Your task to perform on an android device: Search for flights from NYC to Chicago Image 0: 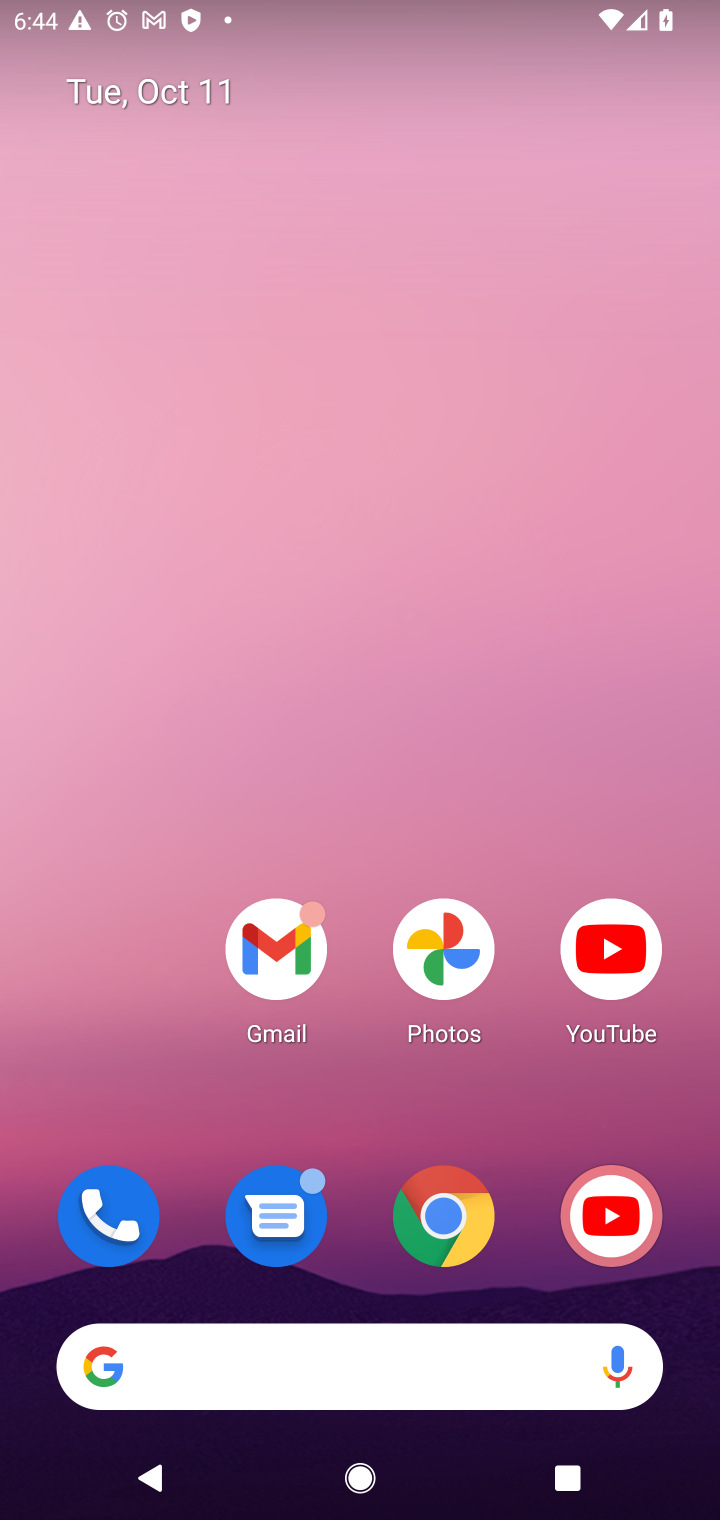
Step 0: click (438, 1256)
Your task to perform on an android device: Search for flights from NYC to Chicago Image 1: 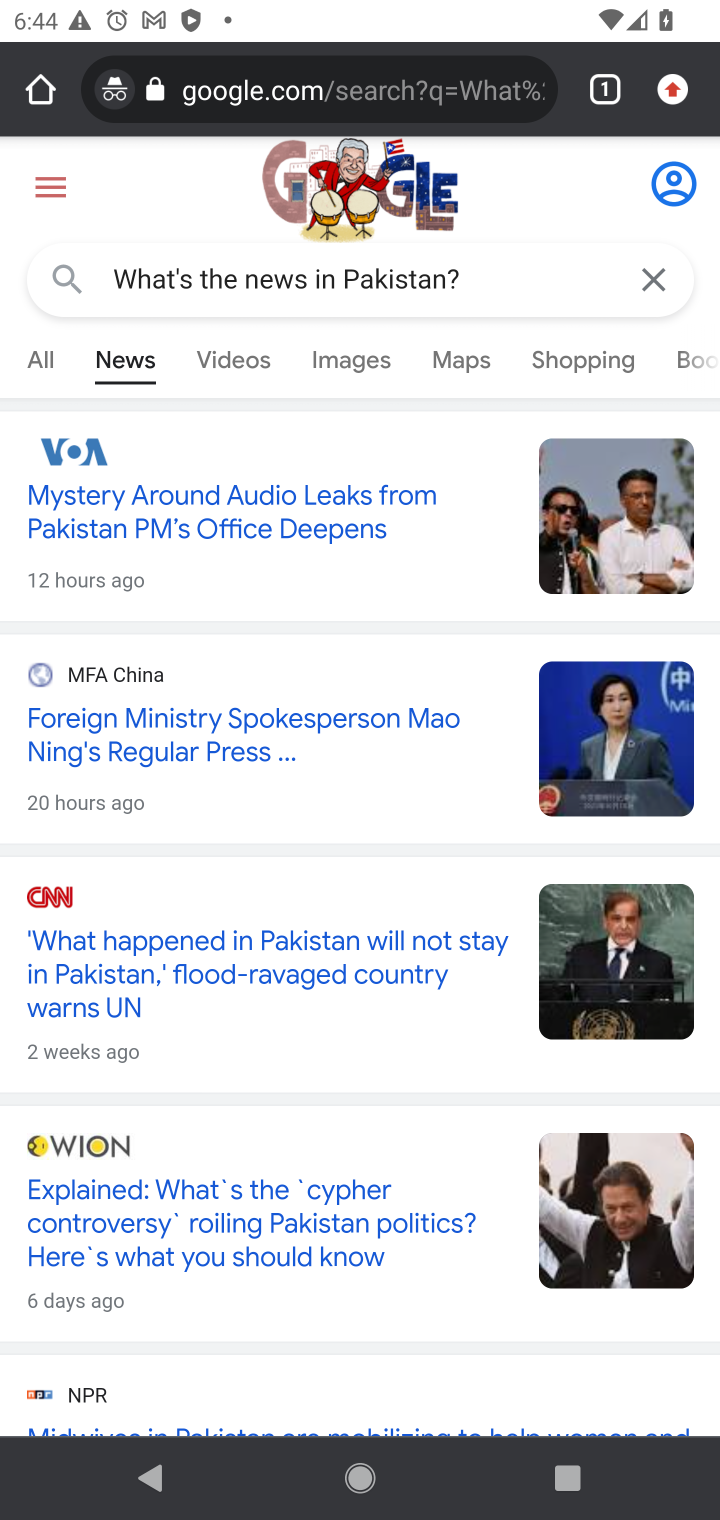
Step 1: click (17, 372)
Your task to perform on an android device: Search for flights from NYC to Chicago Image 2: 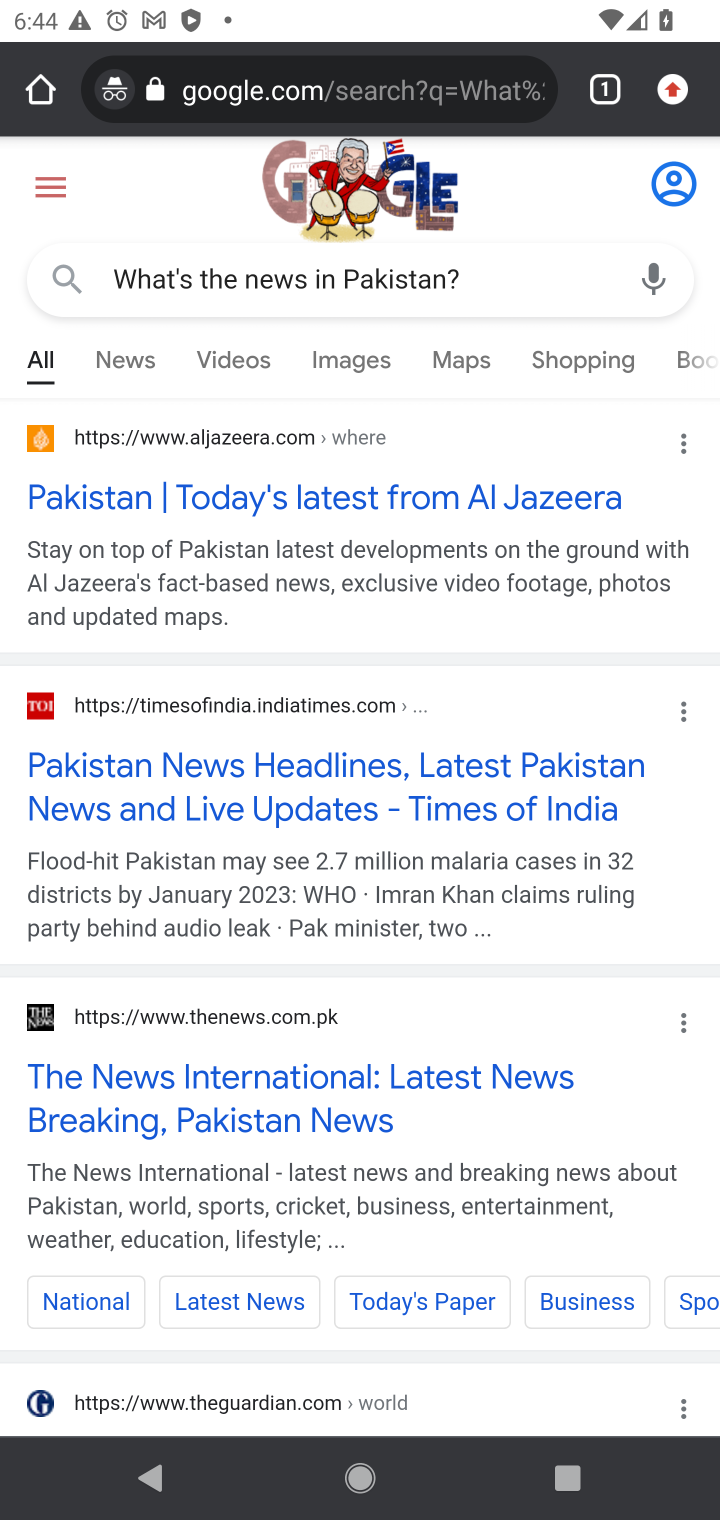
Step 2: click (512, 296)
Your task to perform on an android device: Search for flights from NYC to Chicago Image 3: 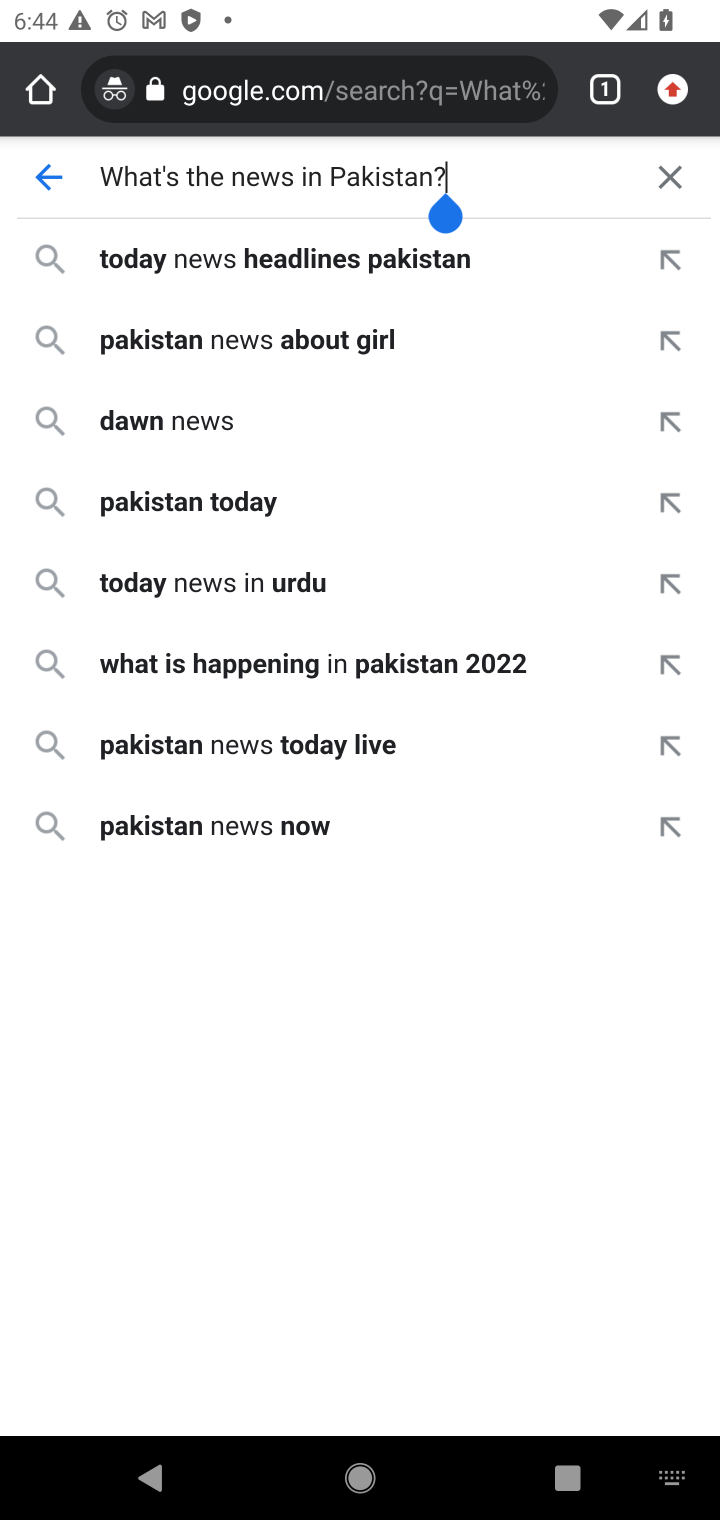
Step 3: click (662, 191)
Your task to perform on an android device: Search for flights from NYC to Chicago Image 4: 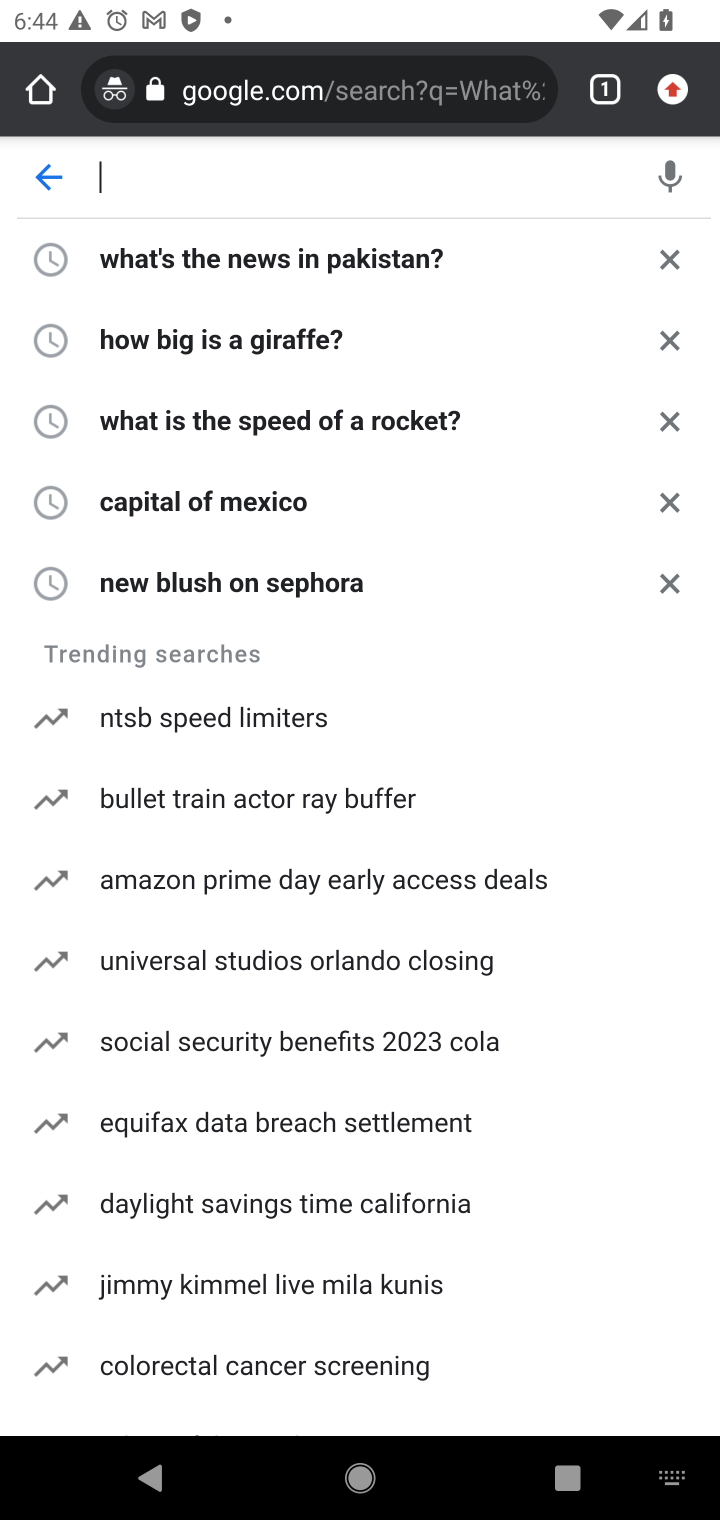
Step 4: type "flights from NYC to Chicago"
Your task to perform on an android device: Search for flights from NYC to Chicago Image 5: 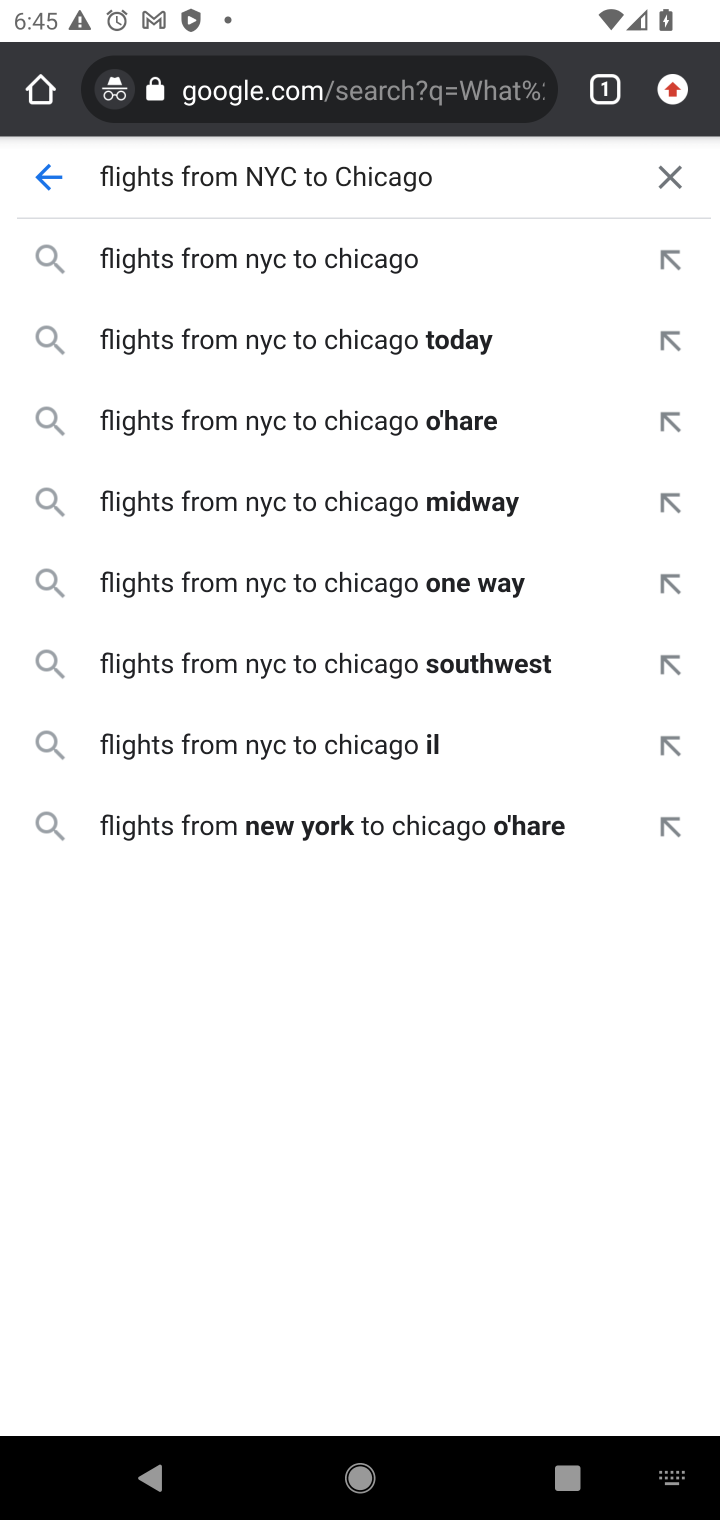
Step 5: press enter
Your task to perform on an android device: Search for flights from NYC to Chicago Image 6: 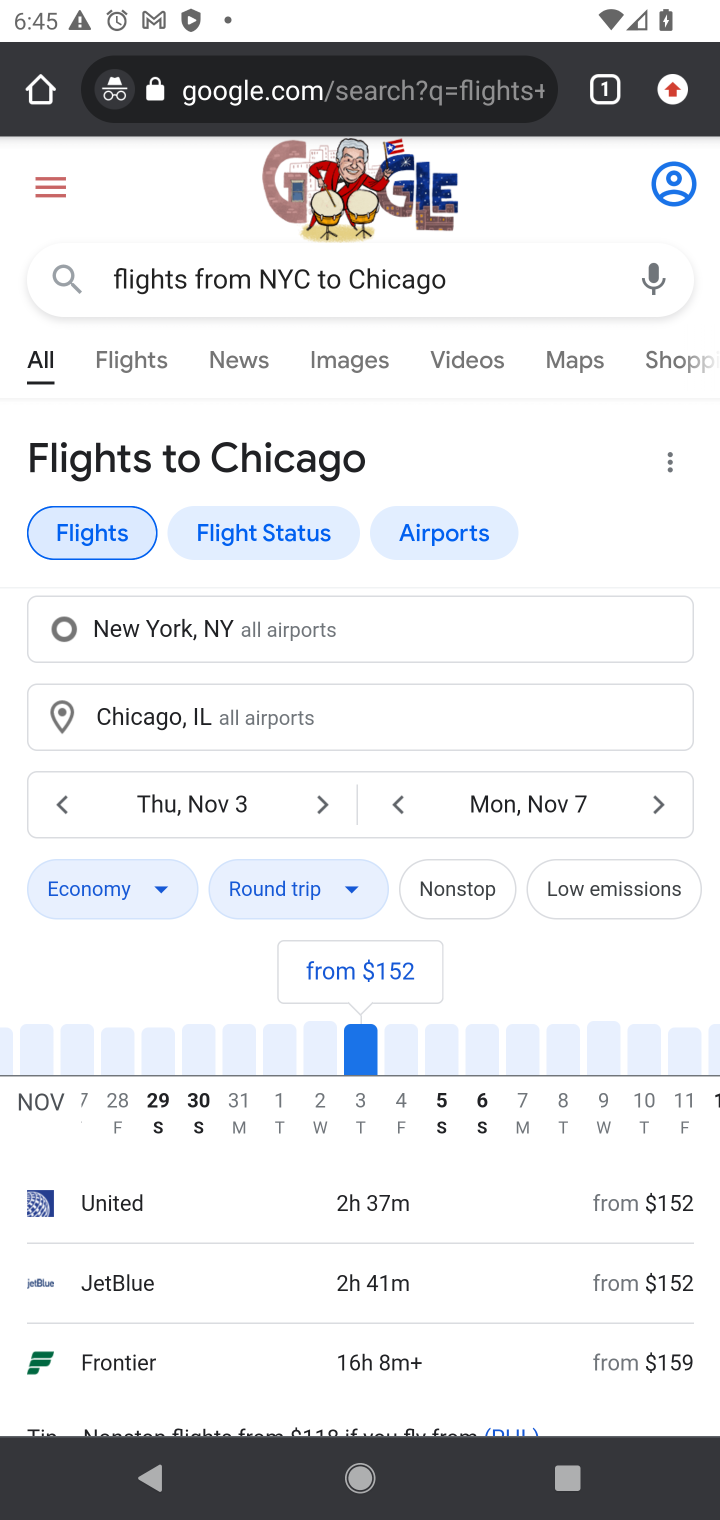
Step 6: task complete